Your task to perform on an android device: empty trash in google photos Image 0: 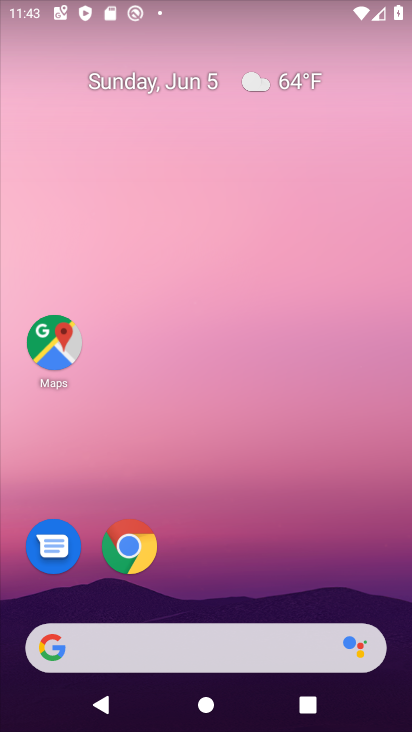
Step 0: drag from (205, 582) to (187, 294)
Your task to perform on an android device: empty trash in google photos Image 1: 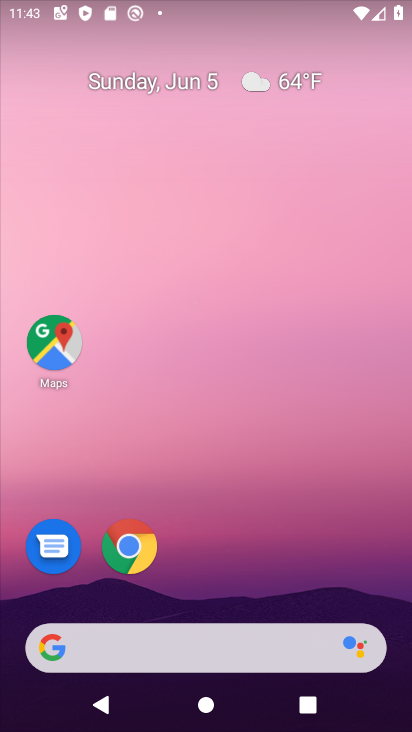
Step 1: drag from (247, 499) to (283, 157)
Your task to perform on an android device: empty trash in google photos Image 2: 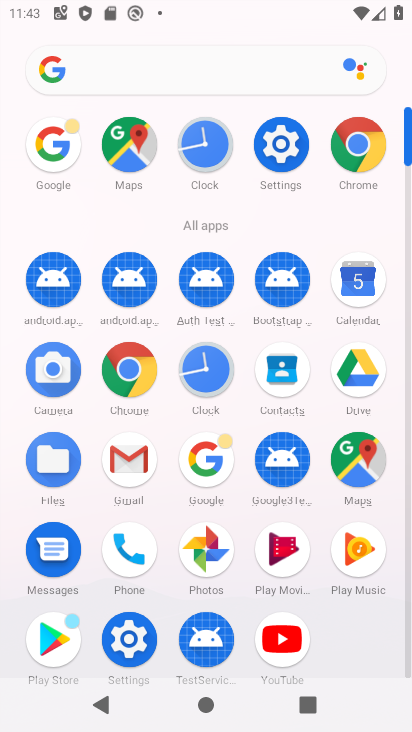
Step 2: click (209, 538)
Your task to perform on an android device: empty trash in google photos Image 3: 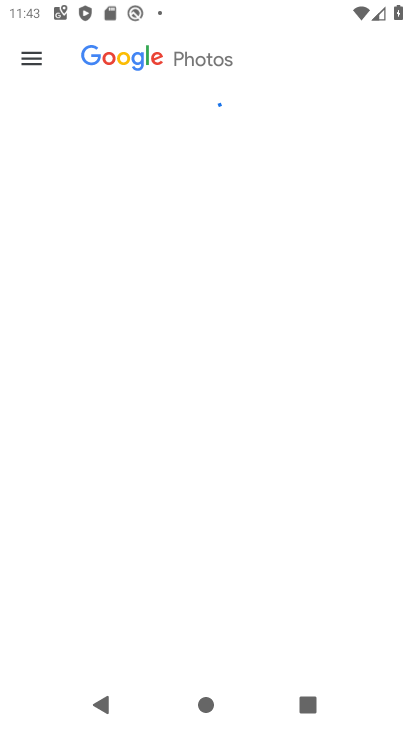
Step 3: click (29, 58)
Your task to perform on an android device: empty trash in google photos Image 4: 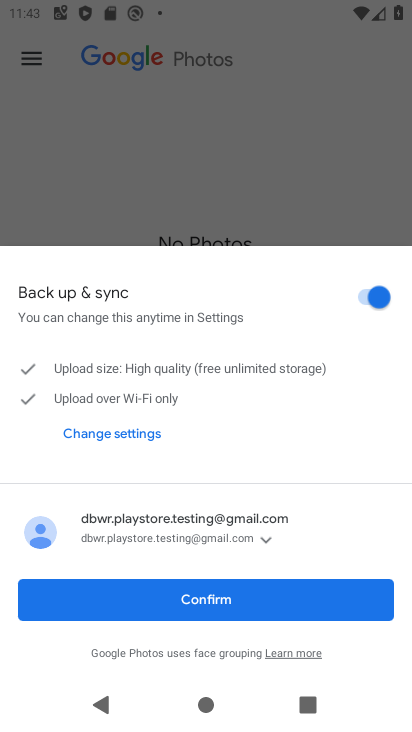
Step 4: click (201, 603)
Your task to perform on an android device: empty trash in google photos Image 5: 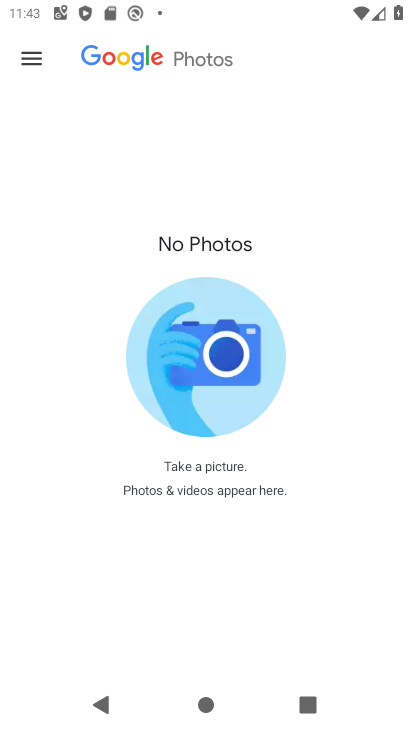
Step 5: click (34, 45)
Your task to perform on an android device: empty trash in google photos Image 6: 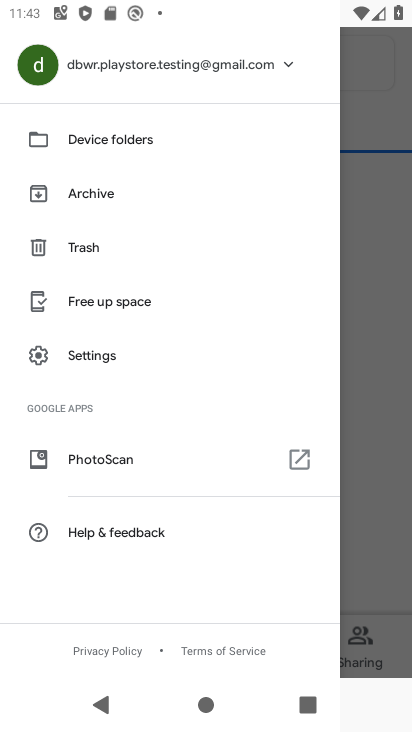
Step 6: click (100, 239)
Your task to perform on an android device: empty trash in google photos Image 7: 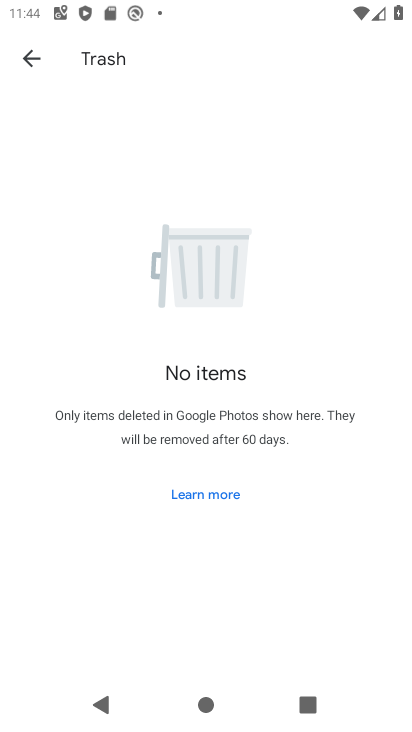
Step 7: task complete